Your task to perform on an android device: empty trash in google photos Image 0: 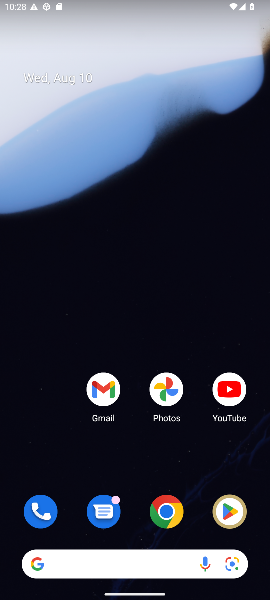
Step 0: click (160, 402)
Your task to perform on an android device: empty trash in google photos Image 1: 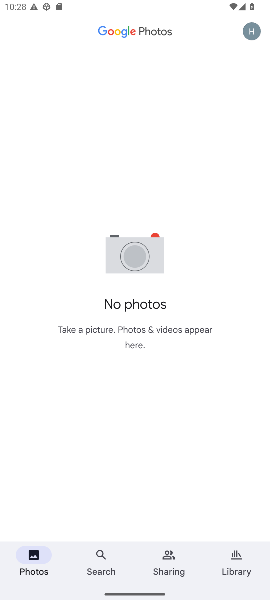
Step 1: click (244, 35)
Your task to perform on an android device: empty trash in google photos Image 2: 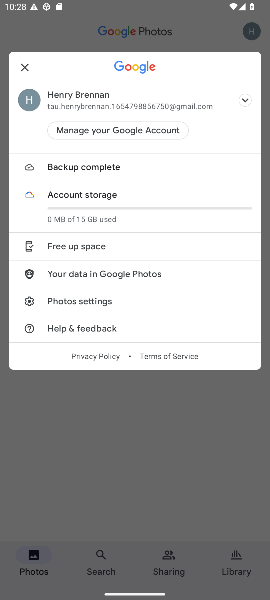
Step 2: click (146, 430)
Your task to perform on an android device: empty trash in google photos Image 3: 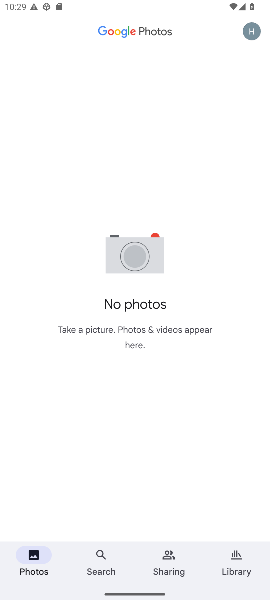
Step 3: click (219, 572)
Your task to perform on an android device: empty trash in google photos Image 4: 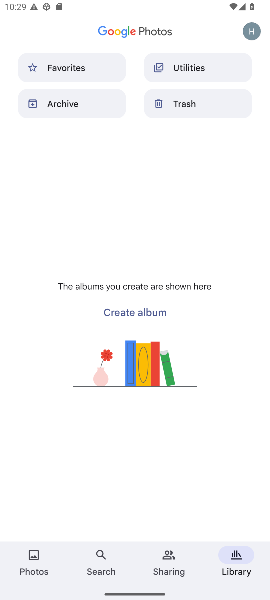
Step 4: click (204, 96)
Your task to perform on an android device: empty trash in google photos Image 5: 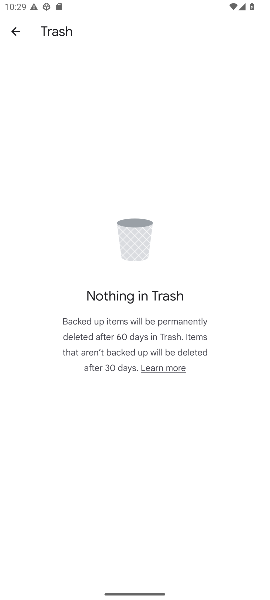
Step 5: task complete